Your task to perform on an android device: search for starred emails in the gmail app Image 0: 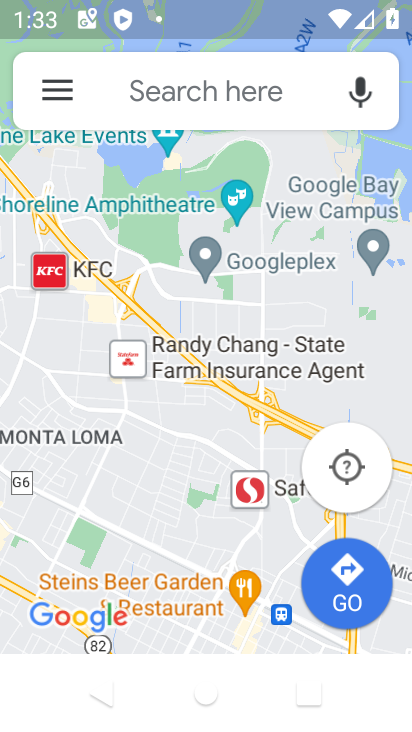
Step 0: press home button
Your task to perform on an android device: search for starred emails in the gmail app Image 1: 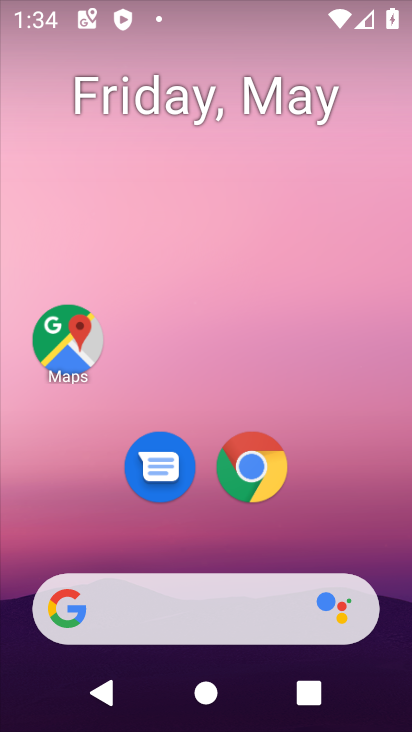
Step 1: drag from (333, 521) to (338, 195)
Your task to perform on an android device: search for starred emails in the gmail app Image 2: 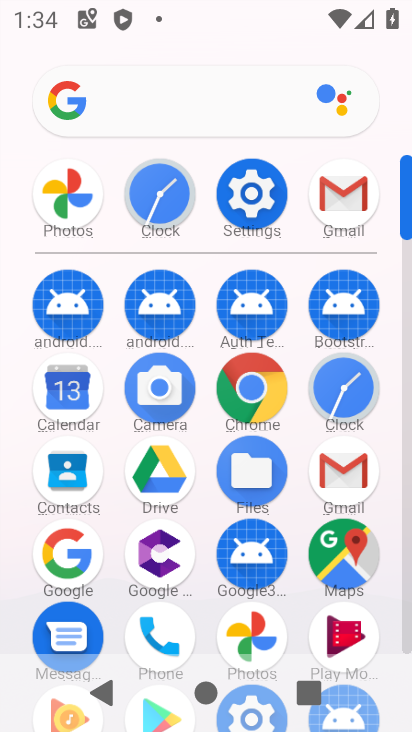
Step 2: click (343, 200)
Your task to perform on an android device: search for starred emails in the gmail app Image 3: 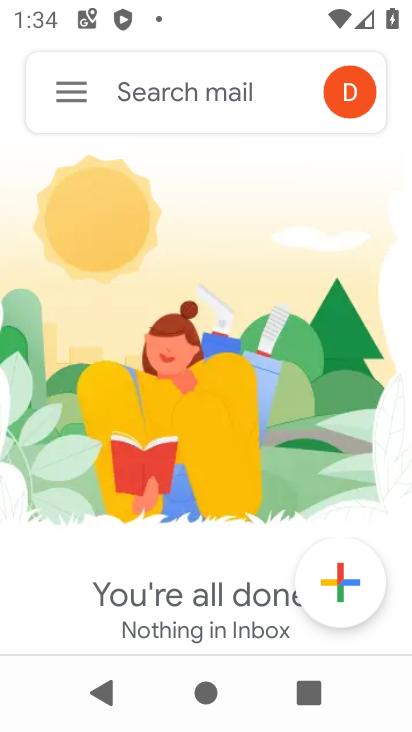
Step 3: click (82, 80)
Your task to perform on an android device: search for starred emails in the gmail app Image 4: 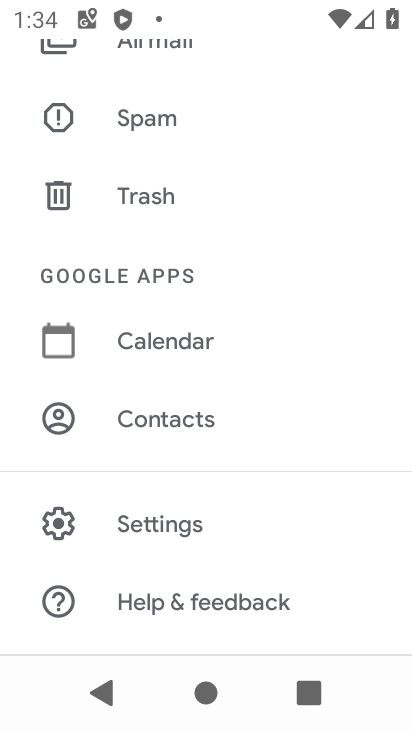
Step 4: drag from (137, 222) to (109, 550)
Your task to perform on an android device: search for starred emails in the gmail app Image 5: 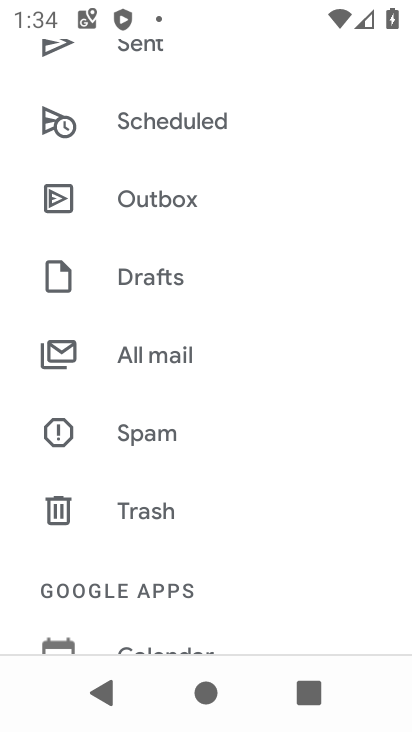
Step 5: drag from (179, 154) to (135, 564)
Your task to perform on an android device: search for starred emails in the gmail app Image 6: 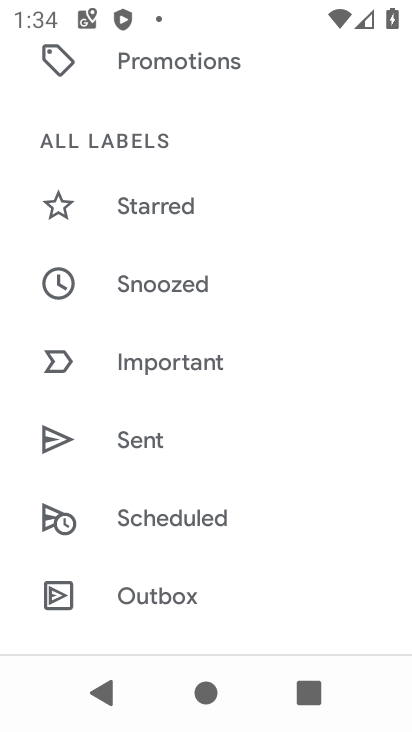
Step 6: click (155, 208)
Your task to perform on an android device: search for starred emails in the gmail app Image 7: 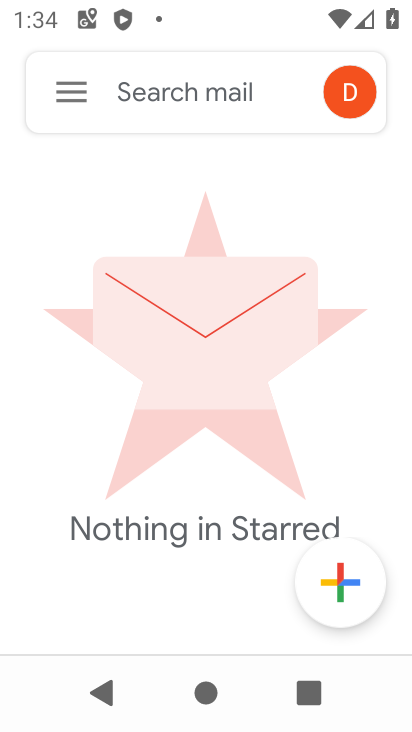
Step 7: task complete